Your task to perform on an android device: find photos in the google photos app Image 0: 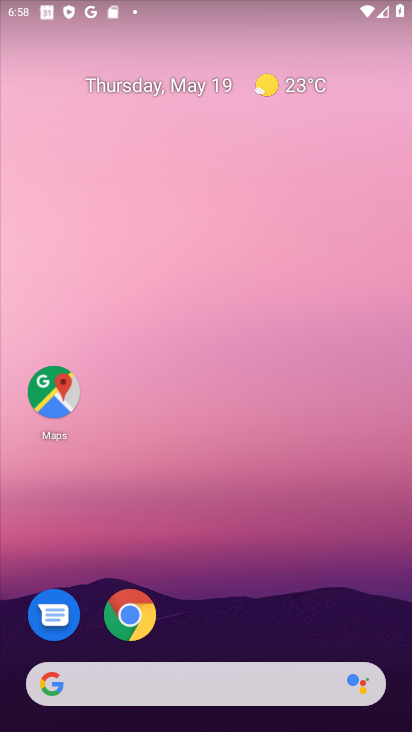
Step 0: drag from (310, 605) to (310, 104)
Your task to perform on an android device: find photos in the google photos app Image 1: 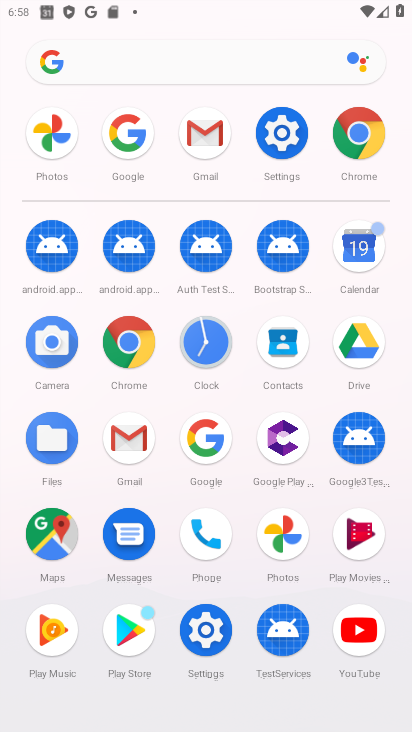
Step 1: click (292, 542)
Your task to perform on an android device: find photos in the google photos app Image 2: 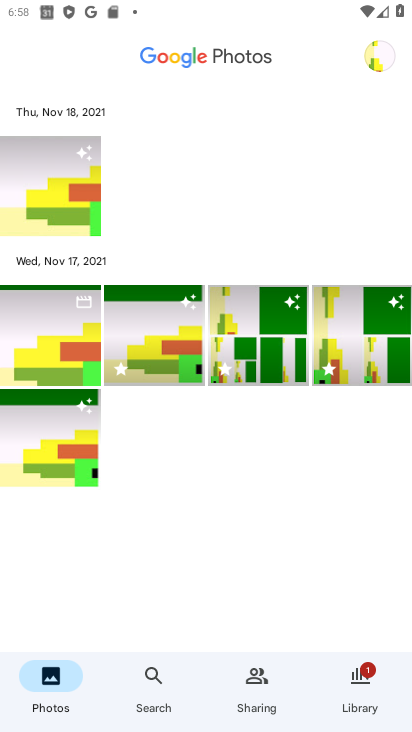
Step 2: task complete